Your task to perform on an android device: read, delete, or share a saved page in the chrome app Image 0: 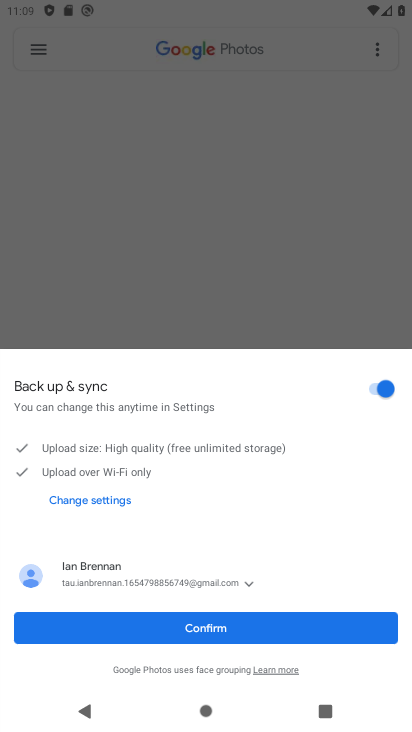
Step 0: press home button
Your task to perform on an android device: read, delete, or share a saved page in the chrome app Image 1: 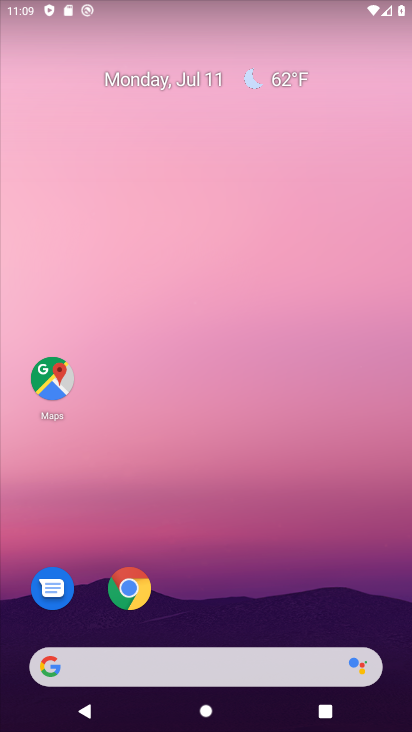
Step 1: click (123, 593)
Your task to perform on an android device: read, delete, or share a saved page in the chrome app Image 2: 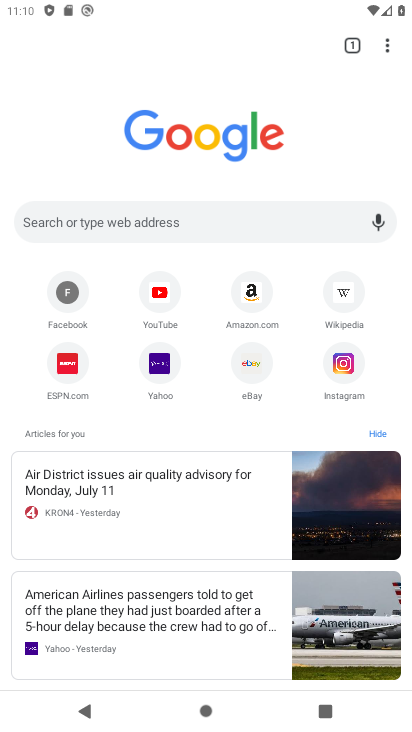
Step 2: click (386, 49)
Your task to perform on an android device: read, delete, or share a saved page in the chrome app Image 3: 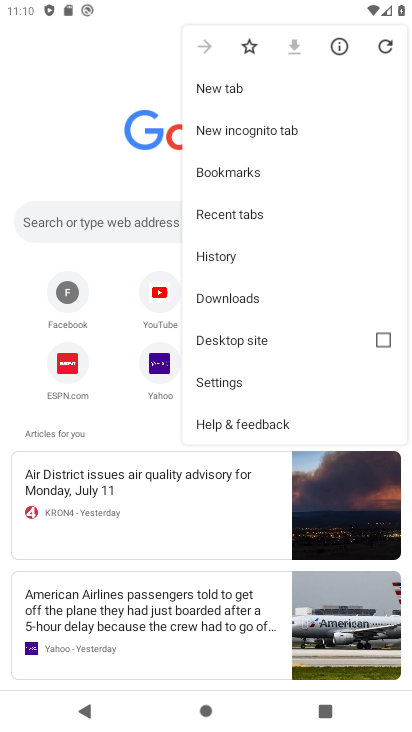
Step 3: task complete